Your task to perform on an android device: turn off smart reply in the gmail app Image 0: 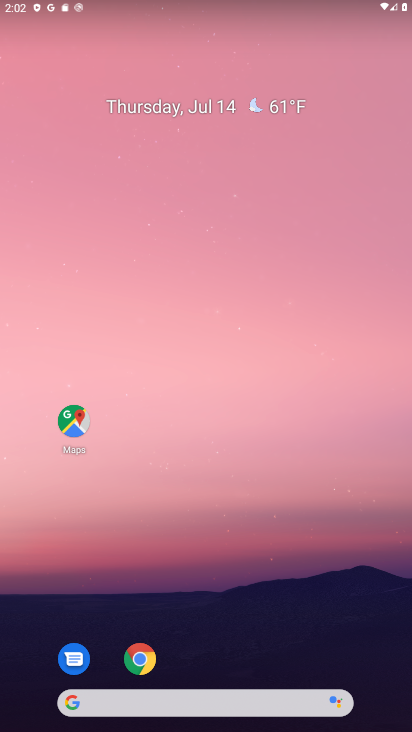
Step 0: drag from (203, 672) to (160, 219)
Your task to perform on an android device: turn off smart reply in the gmail app Image 1: 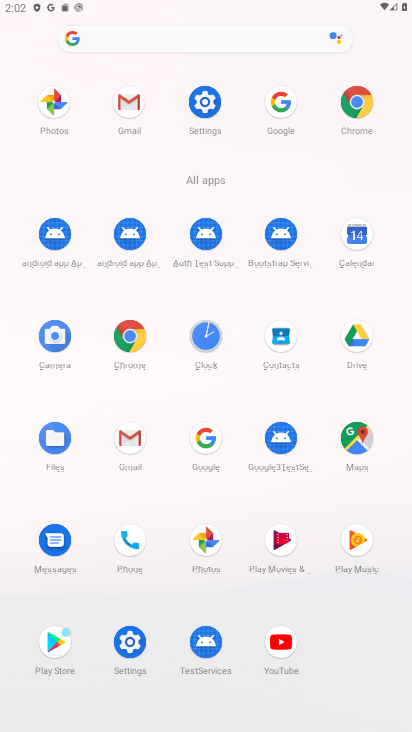
Step 1: click (120, 437)
Your task to perform on an android device: turn off smart reply in the gmail app Image 2: 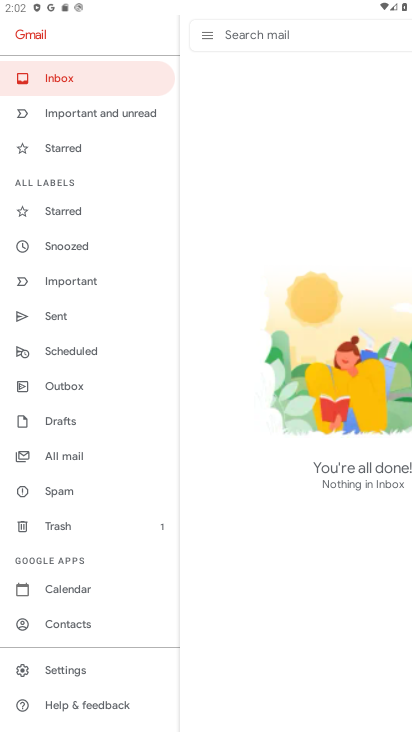
Step 2: drag from (83, 578) to (57, 366)
Your task to perform on an android device: turn off smart reply in the gmail app Image 3: 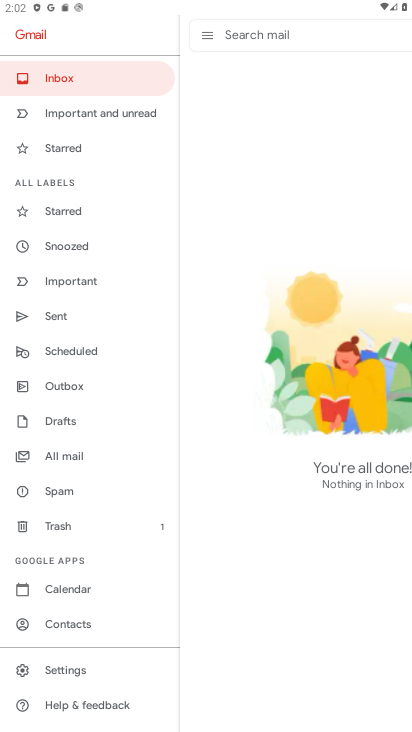
Step 3: click (48, 667)
Your task to perform on an android device: turn off smart reply in the gmail app Image 4: 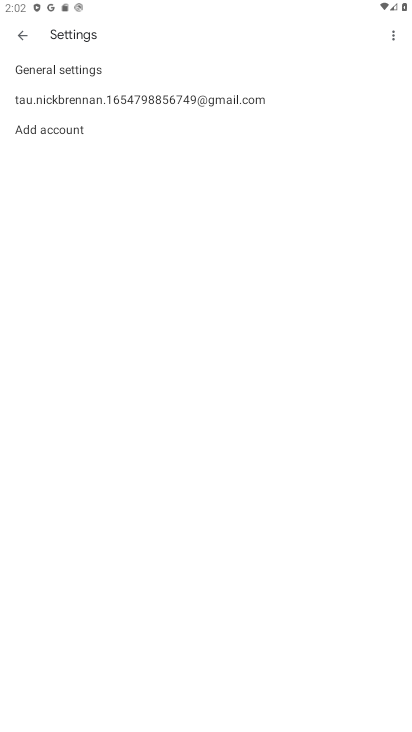
Step 4: click (46, 108)
Your task to perform on an android device: turn off smart reply in the gmail app Image 5: 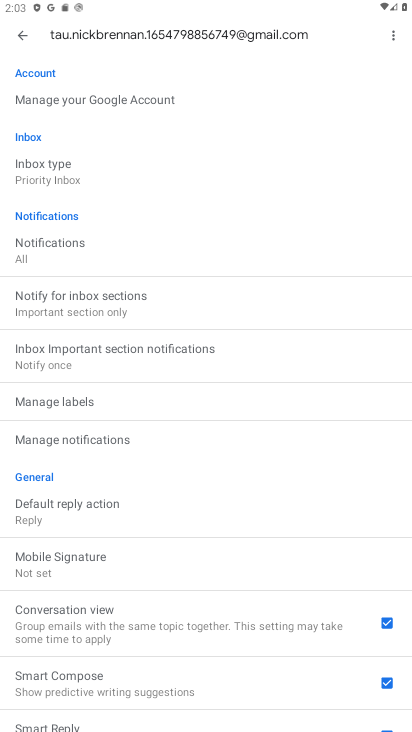
Step 5: drag from (179, 660) to (148, 464)
Your task to perform on an android device: turn off smart reply in the gmail app Image 6: 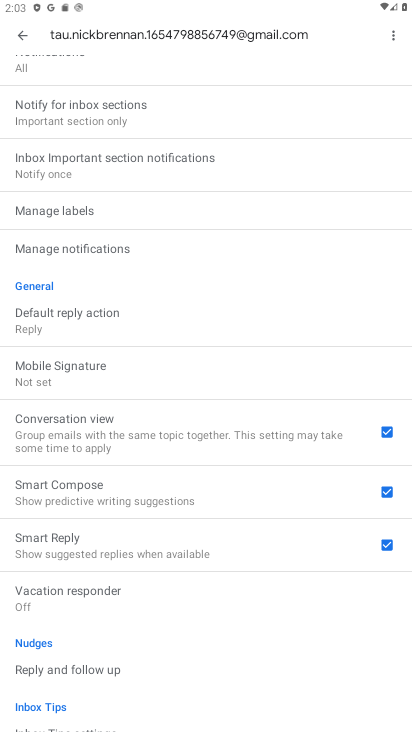
Step 6: click (387, 545)
Your task to perform on an android device: turn off smart reply in the gmail app Image 7: 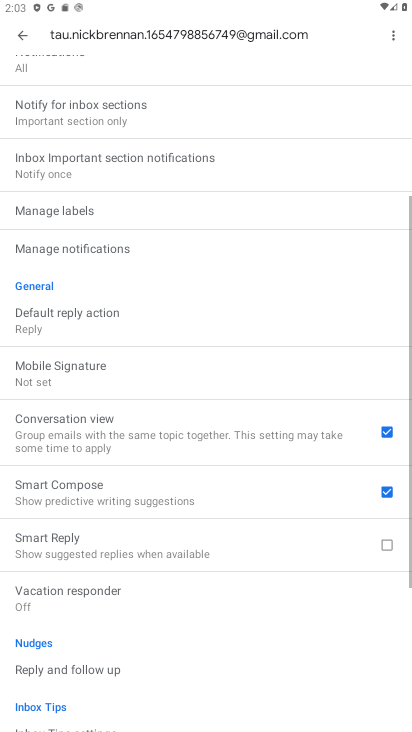
Step 7: task complete